Your task to perform on an android device: Search for pizza restaurants on Maps Image 0: 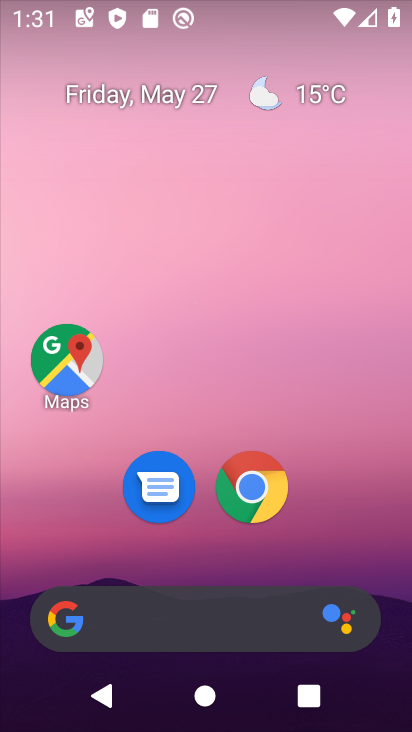
Step 0: click (76, 355)
Your task to perform on an android device: Search for pizza restaurants on Maps Image 1: 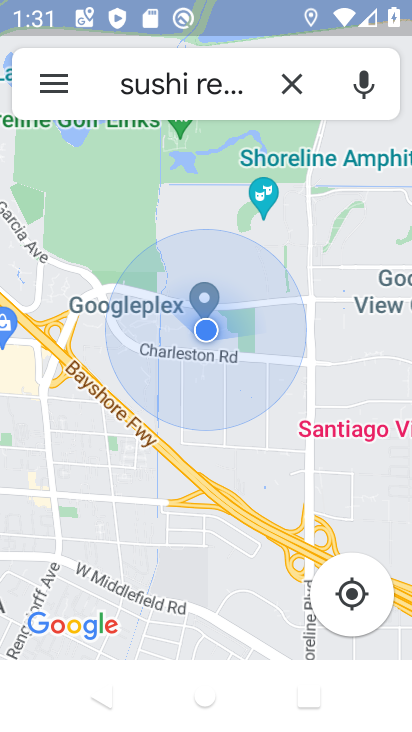
Step 1: click (300, 71)
Your task to perform on an android device: Search for pizza restaurants on Maps Image 2: 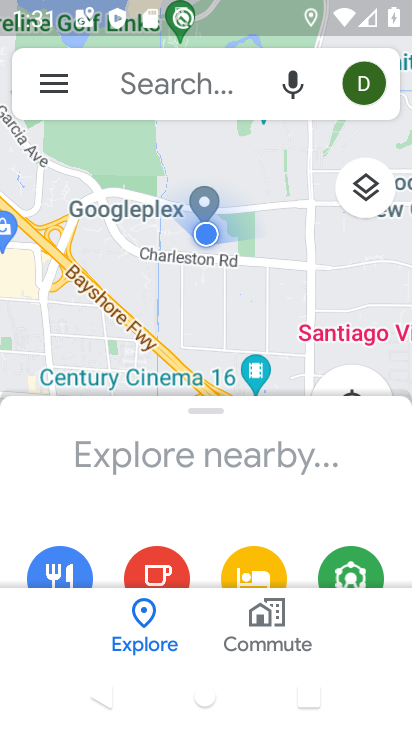
Step 2: click (231, 80)
Your task to perform on an android device: Search for pizza restaurants on Maps Image 3: 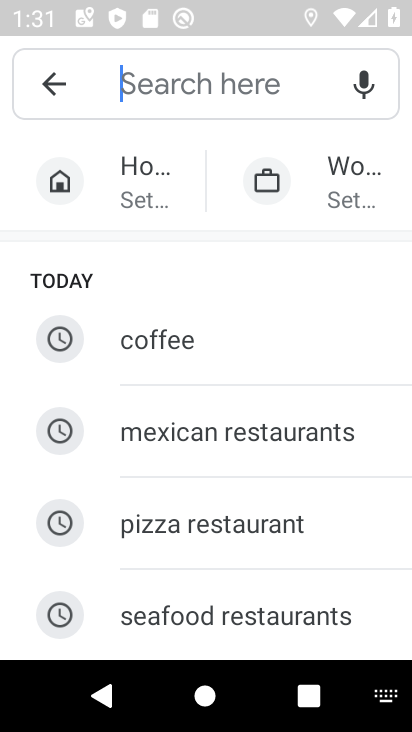
Step 3: click (170, 548)
Your task to perform on an android device: Search for pizza restaurants on Maps Image 4: 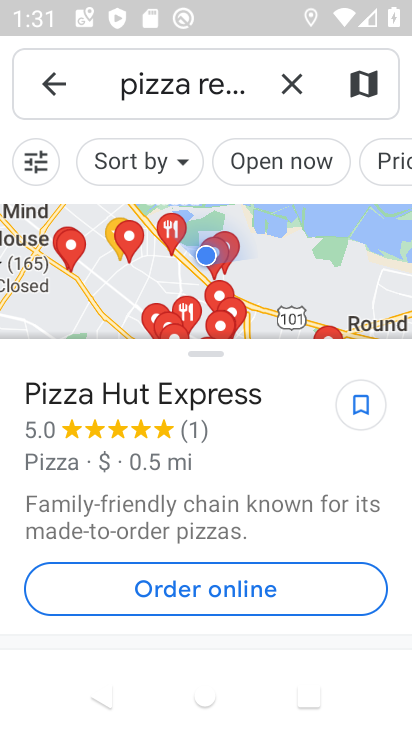
Step 4: task complete